Your task to perform on an android device: remove spam from my inbox in the gmail app Image 0: 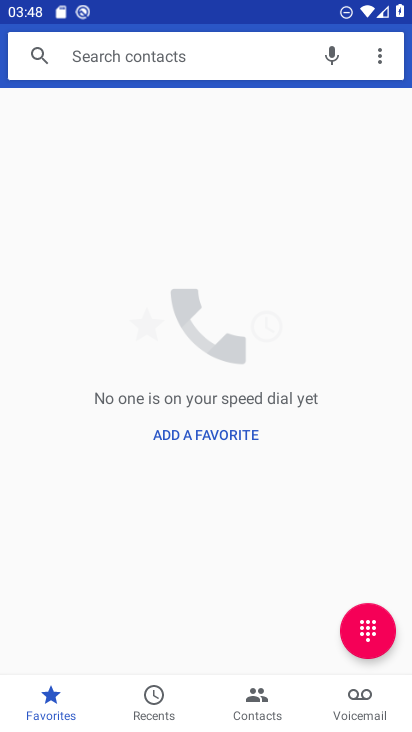
Step 0: press home button
Your task to perform on an android device: remove spam from my inbox in the gmail app Image 1: 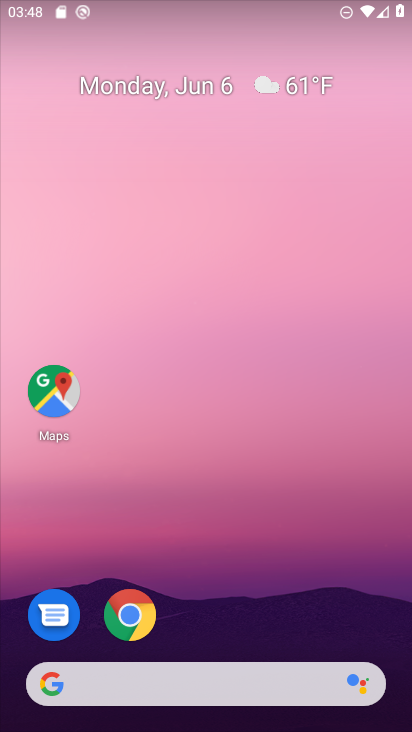
Step 1: drag from (345, 608) to (312, 138)
Your task to perform on an android device: remove spam from my inbox in the gmail app Image 2: 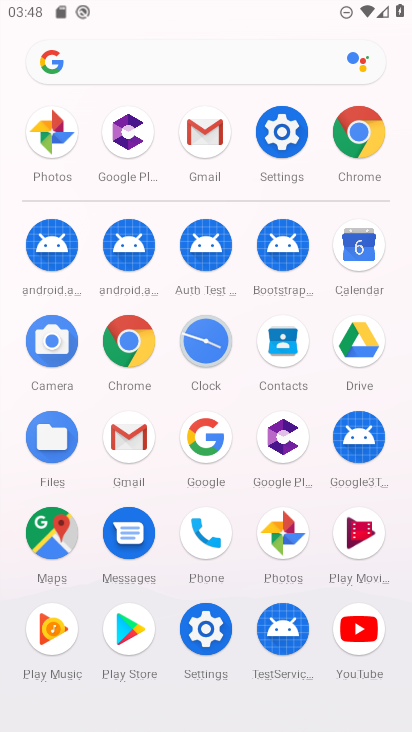
Step 2: click (128, 436)
Your task to perform on an android device: remove spam from my inbox in the gmail app Image 3: 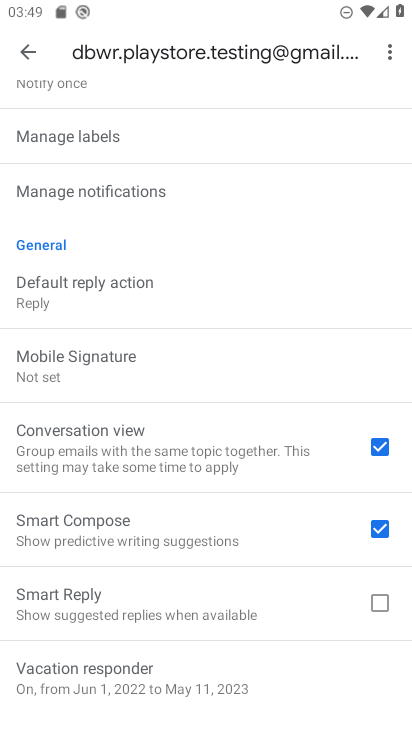
Step 3: press back button
Your task to perform on an android device: remove spam from my inbox in the gmail app Image 4: 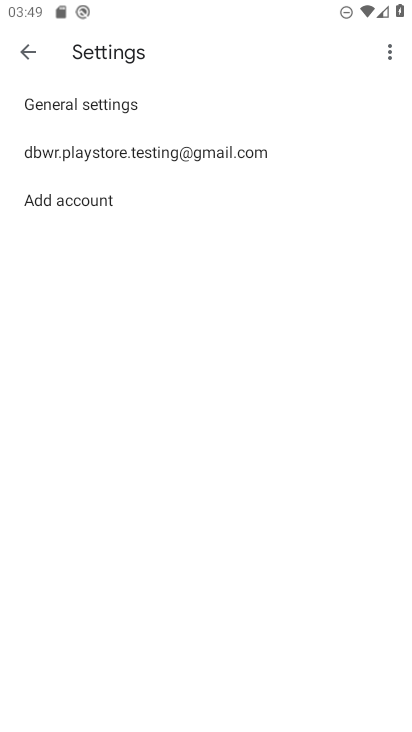
Step 4: press back button
Your task to perform on an android device: remove spam from my inbox in the gmail app Image 5: 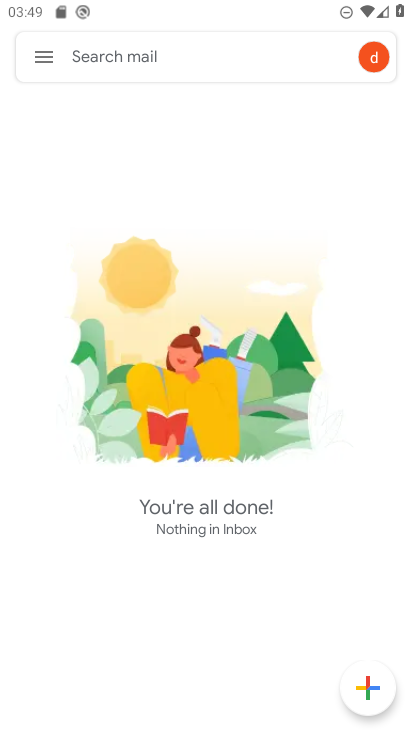
Step 5: click (31, 53)
Your task to perform on an android device: remove spam from my inbox in the gmail app Image 6: 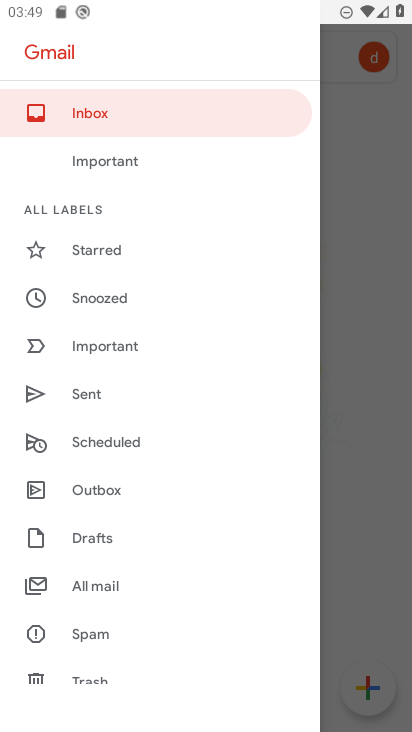
Step 6: click (96, 635)
Your task to perform on an android device: remove spam from my inbox in the gmail app Image 7: 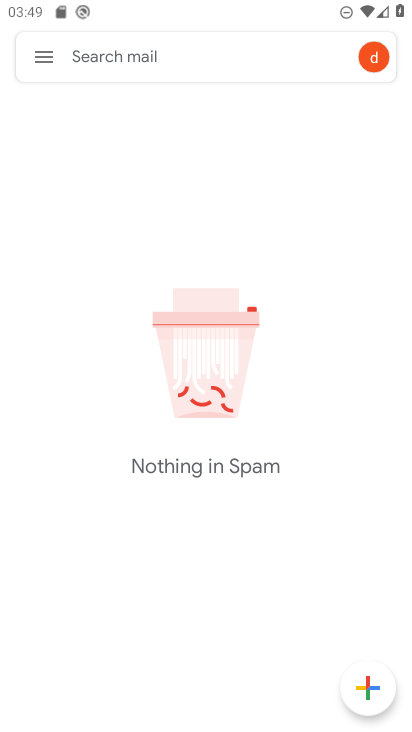
Step 7: task complete